Your task to perform on an android device: turn off notifications settings in the gmail app Image 0: 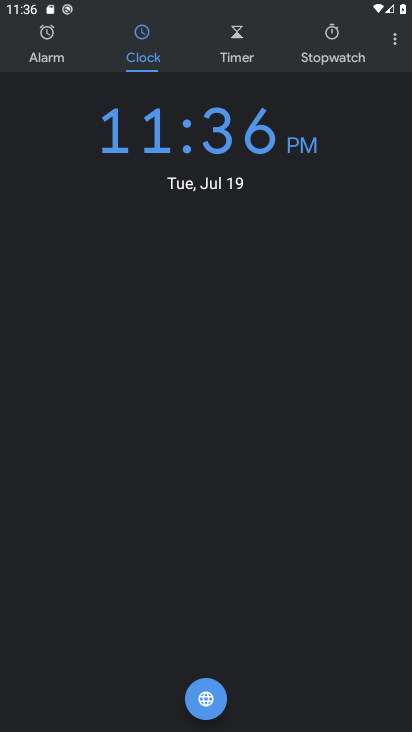
Step 0: click (300, 642)
Your task to perform on an android device: turn off notifications settings in the gmail app Image 1: 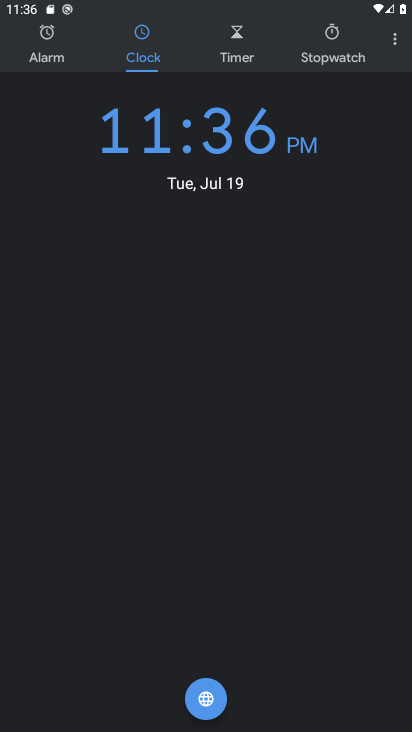
Step 1: press home button
Your task to perform on an android device: turn off notifications settings in the gmail app Image 2: 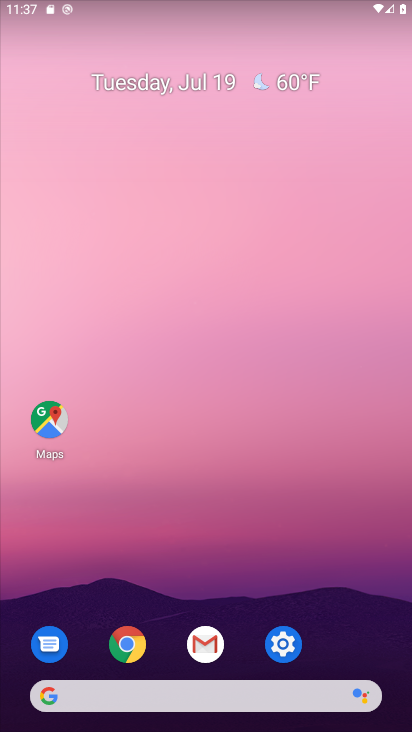
Step 2: click (291, 654)
Your task to perform on an android device: turn off notifications settings in the gmail app Image 3: 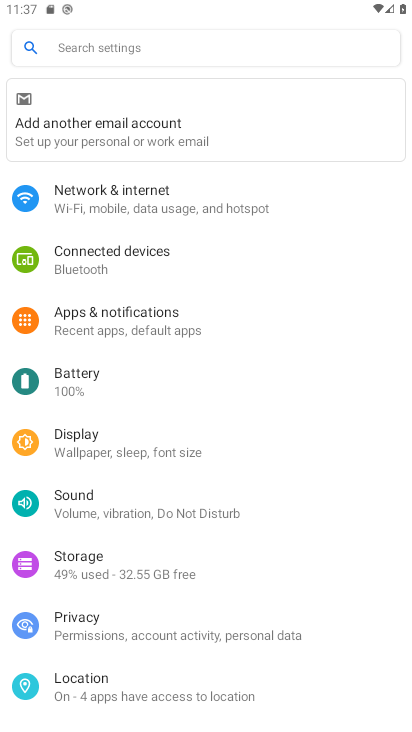
Step 3: press home button
Your task to perform on an android device: turn off notifications settings in the gmail app Image 4: 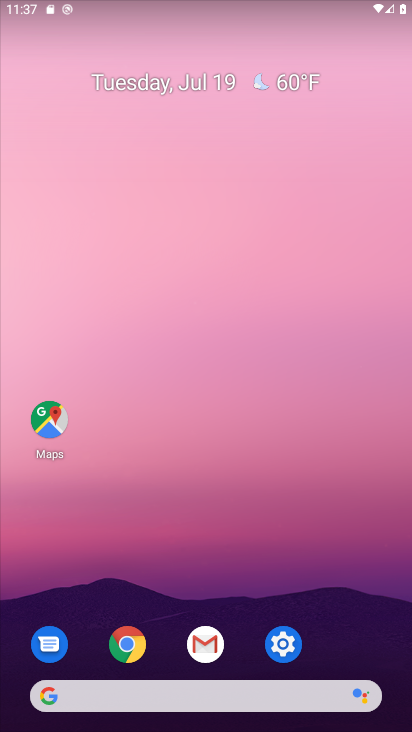
Step 4: click (206, 655)
Your task to perform on an android device: turn off notifications settings in the gmail app Image 5: 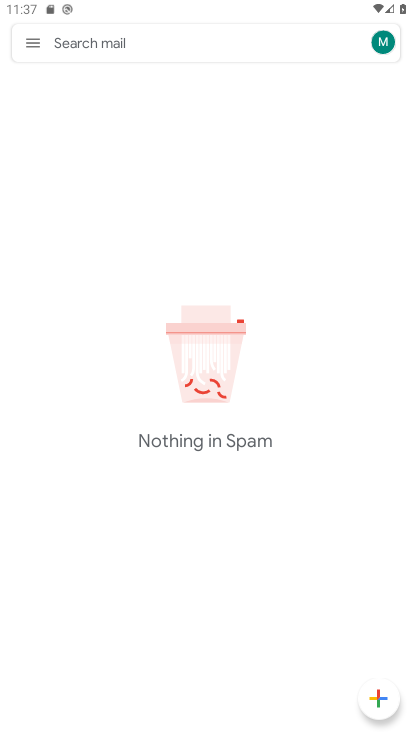
Step 5: click (24, 50)
Your task to perform on an android device: turn off notifications settings in the gmail app Image 6: 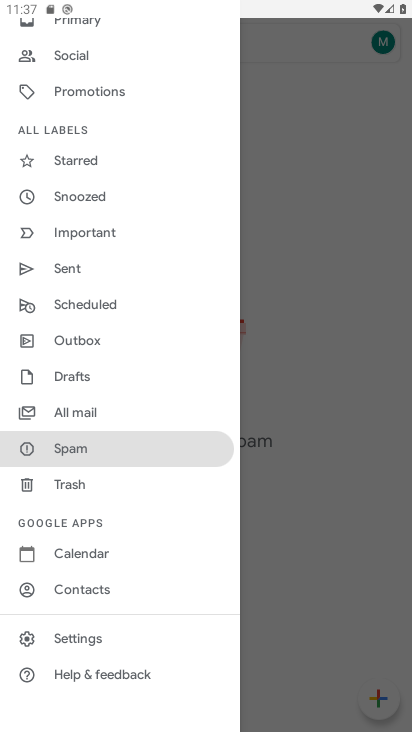
Step 6: click (89, 632)
Your task to perform on an android device: turn off notifications settings in the gmail app Image 7: 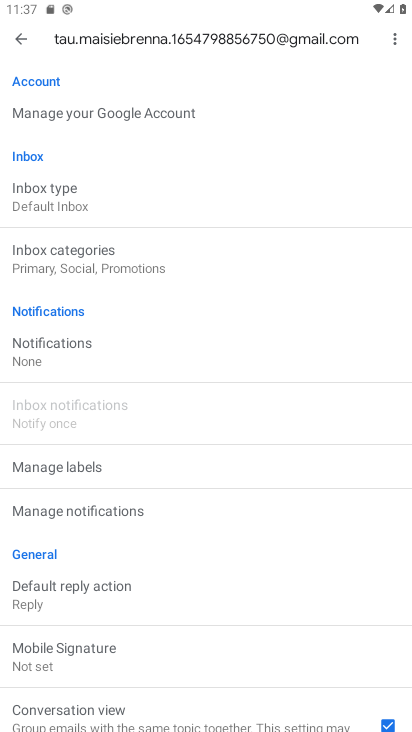
Step 7: click (52, 347)
Your task to perform on an android device: turn off notifications settings in the gmail app Image 8: 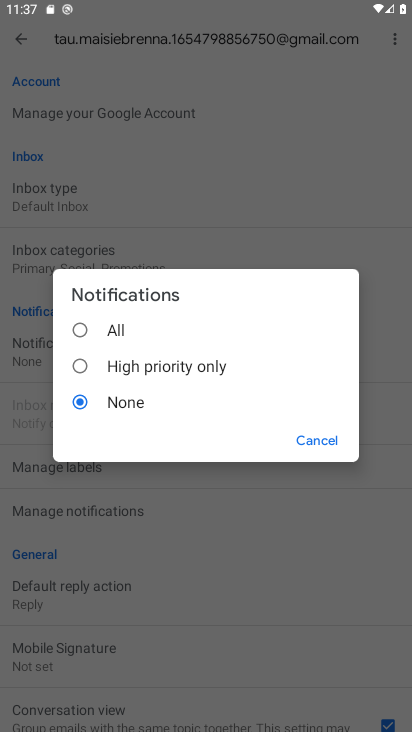
Step 8: task complete